Your task to perform on an android device: Look up the best rated bike on Walmart Image 0: 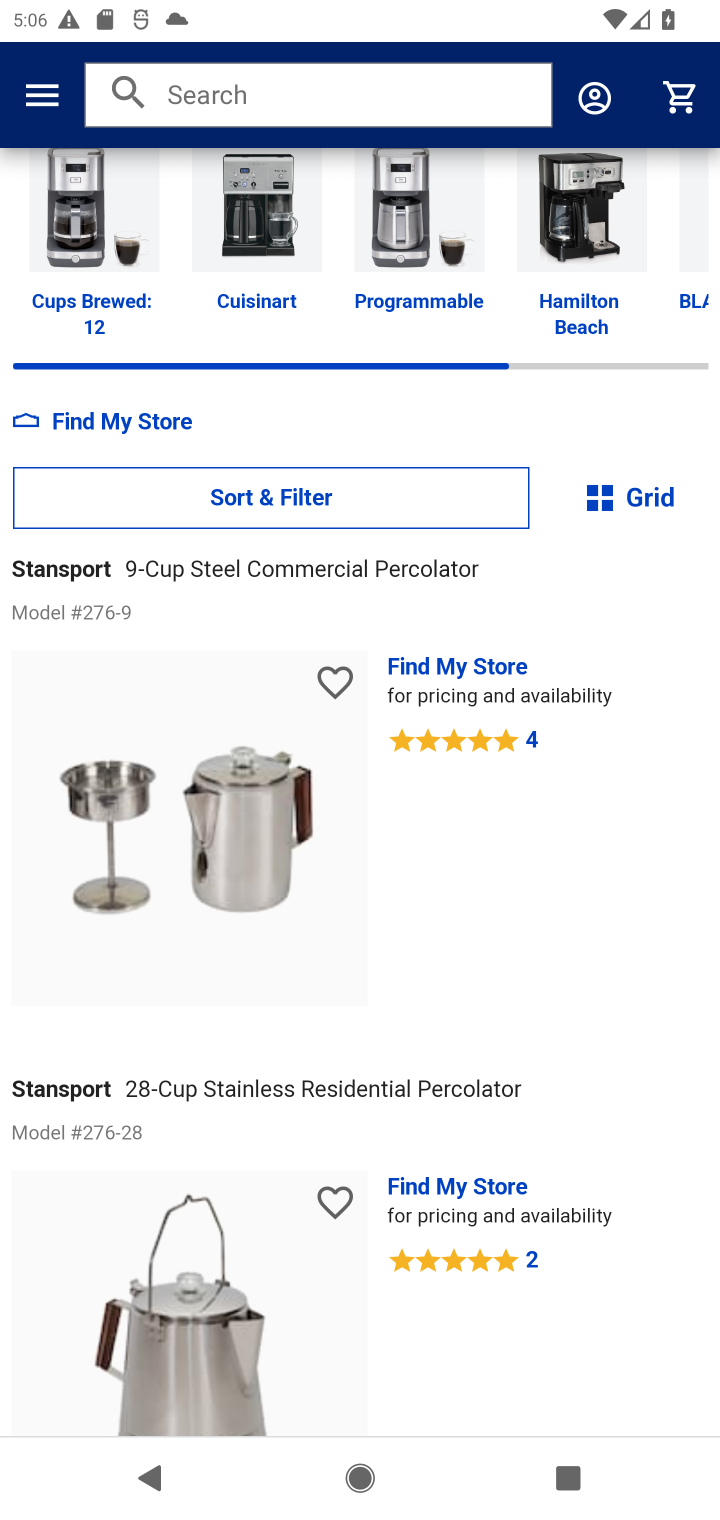
Step 0: press home button
Your task to perform on an android device: Look up the best rated bike on Walmart Image 1: 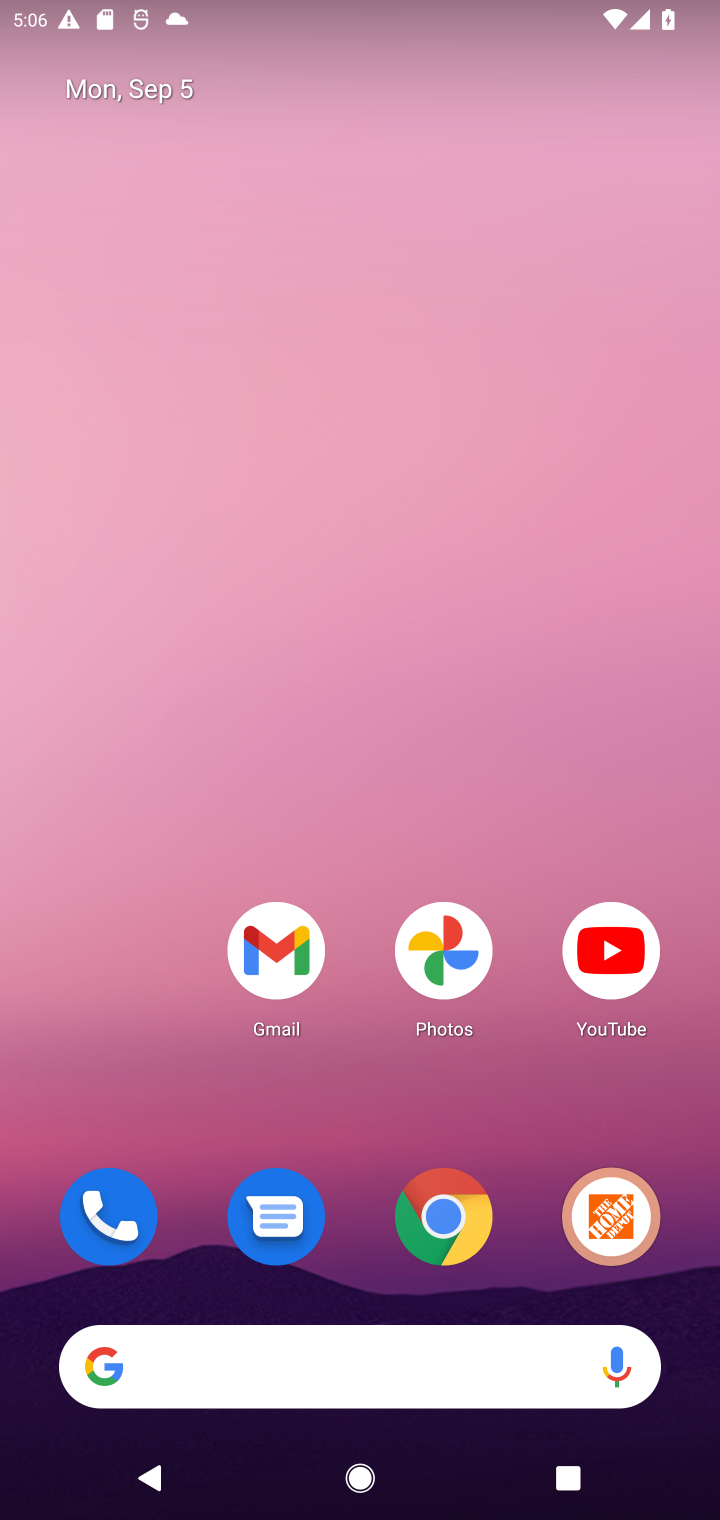
Step 1: click (103, 1360)
Your task to perform on an android device: Look up the best rated bike on Walmart Image 2: 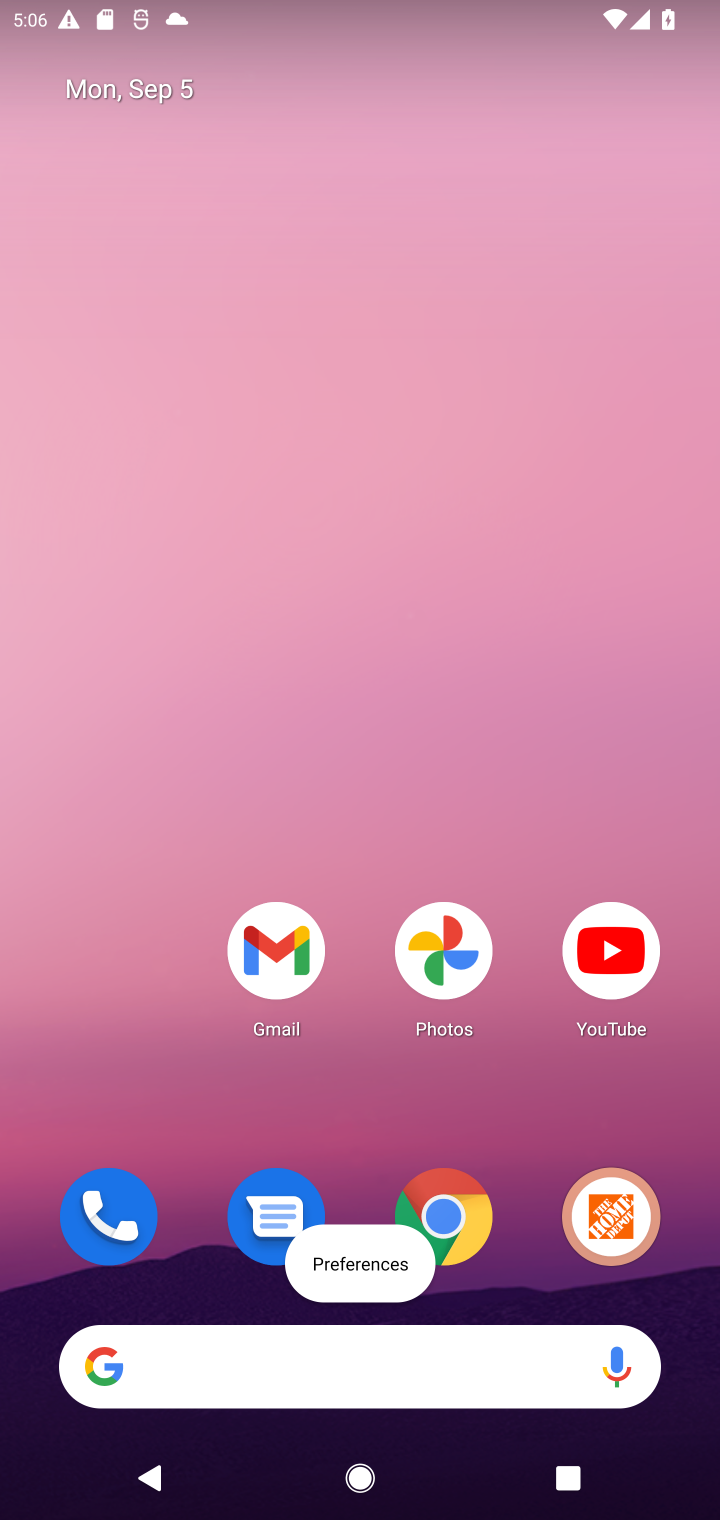
Step 2: click (91, 1358)
Your task to perform on an android device: Look up the best rated bike on Walmart Image 3: 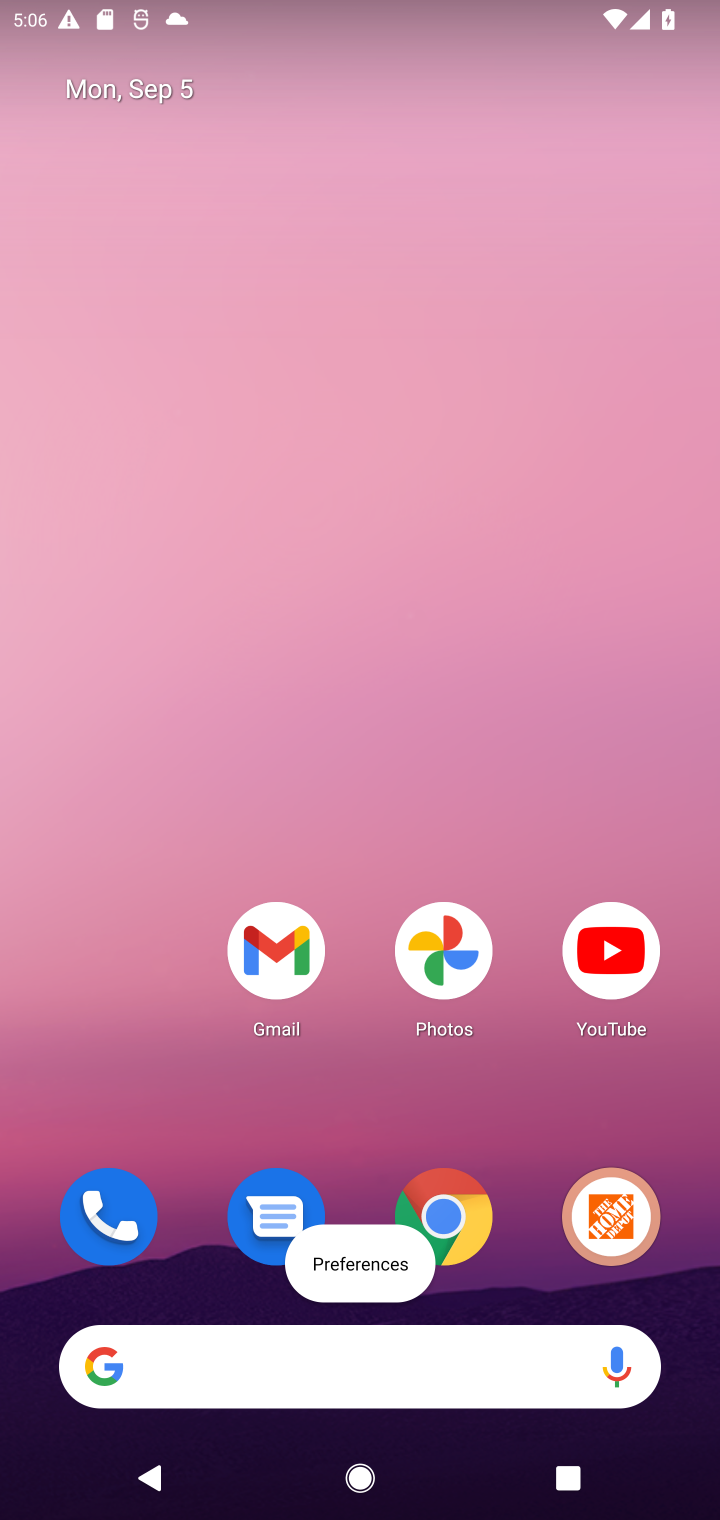
Step 3: click (87, 1357)
Your task to perform on an android device: Look up the best rated bike on Walmart Image 4: 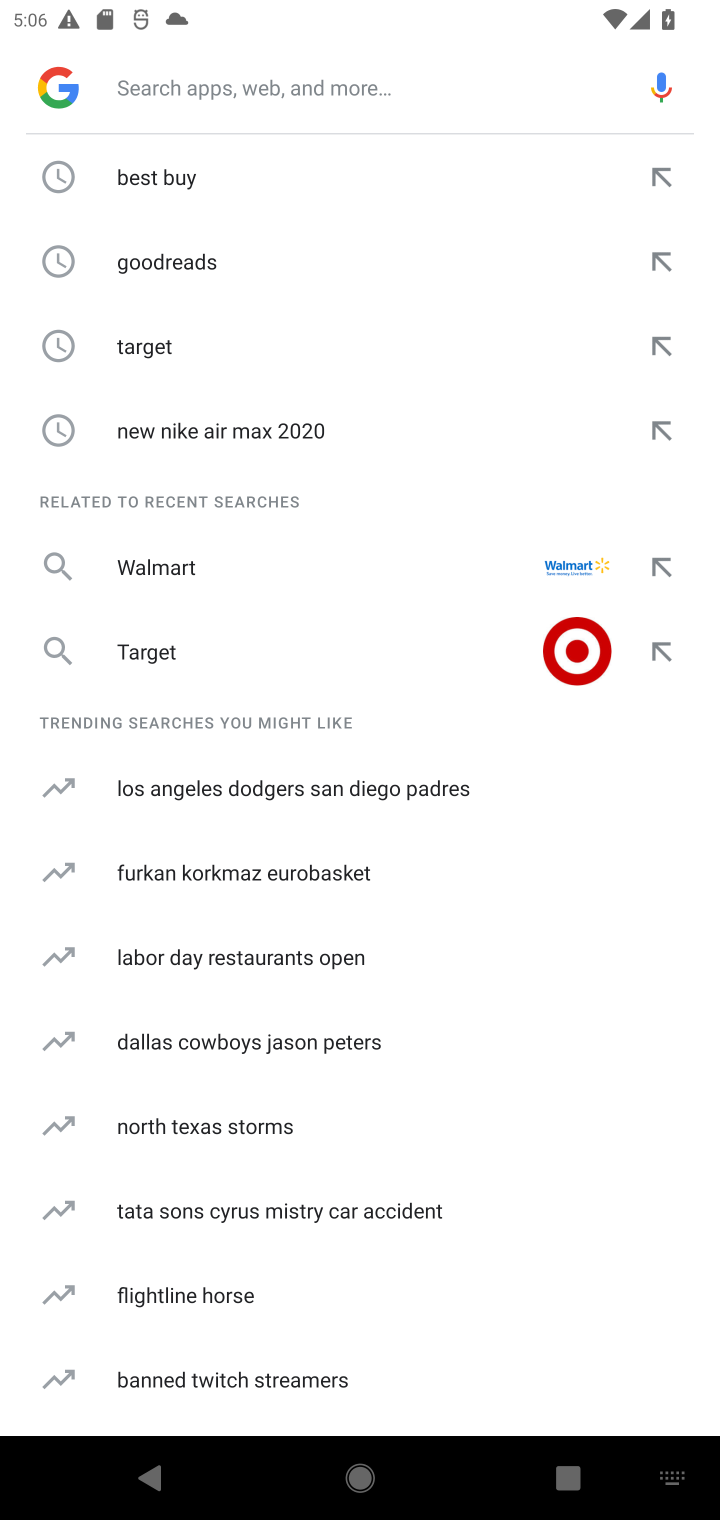
Step 4: type "Walmart"
Your task to perform on an android device: Look up the best rated bike on Walmart Image 5: 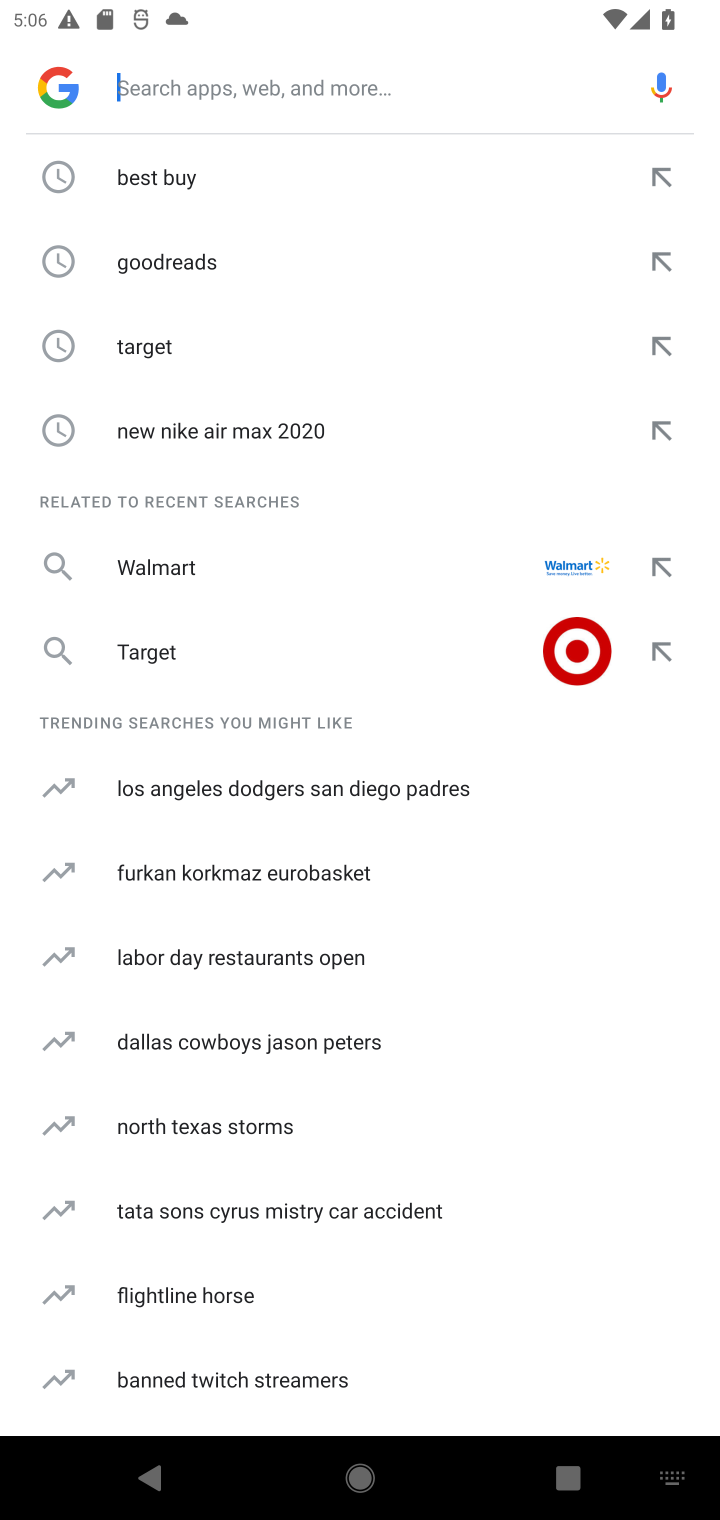
Step 5: click (222, 96)
Your task to perform on an android device: Look up the best rated bike on Walmart Image 6: 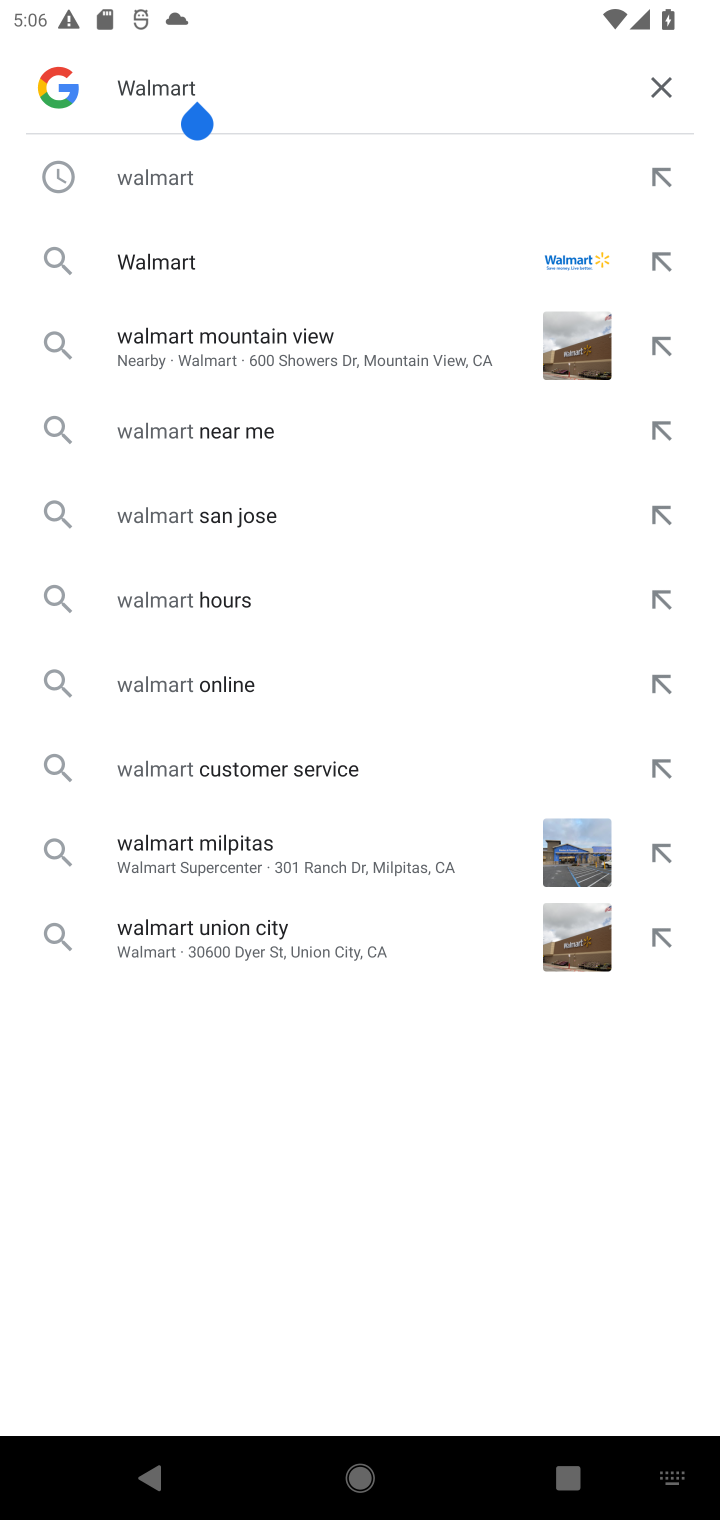
Step 6: press enter
Your task to perform on an android device: Look up the best rated bike on Walmart Image 7: 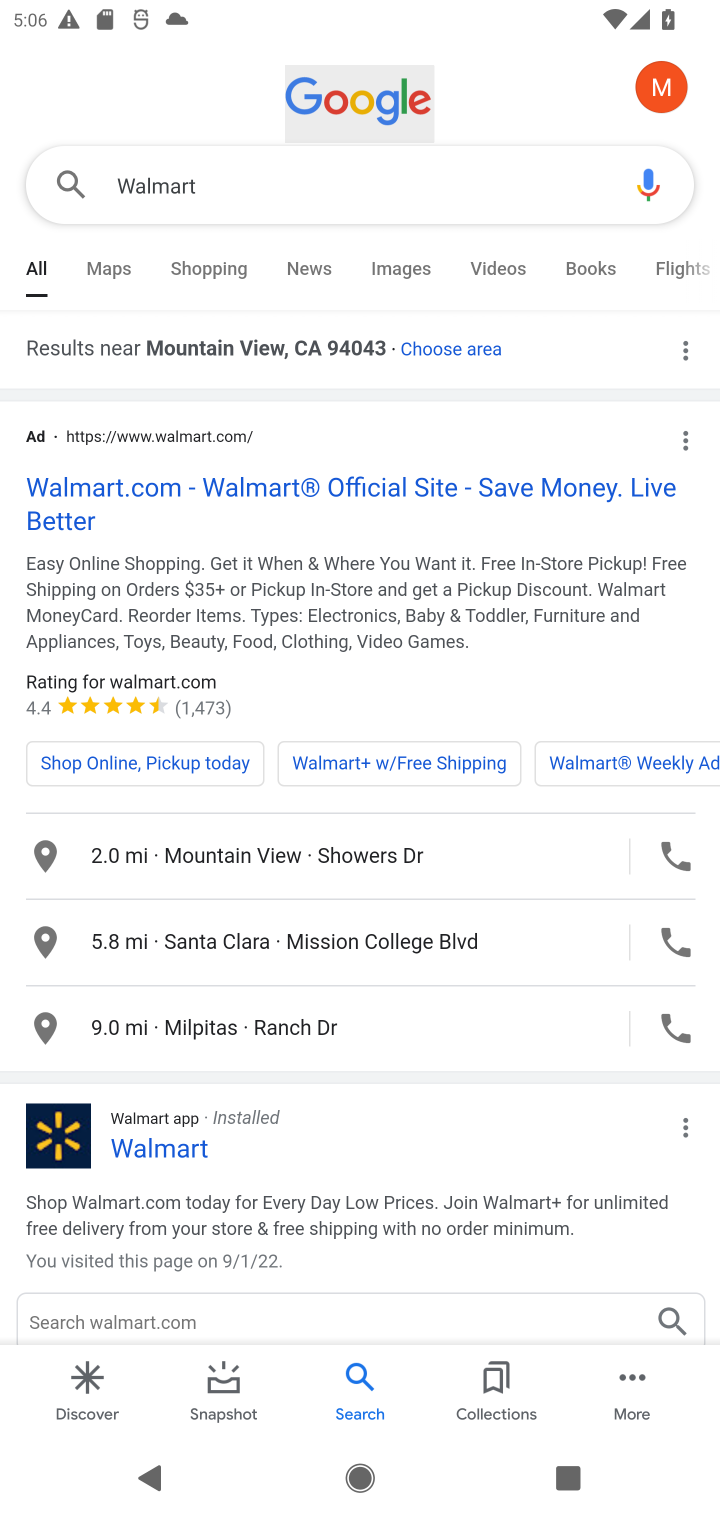
Step 7: drag from (395, 1096) to (382, 847)
Your task to perform on an android device: Look up the best rated bike on Walmart Image 8: 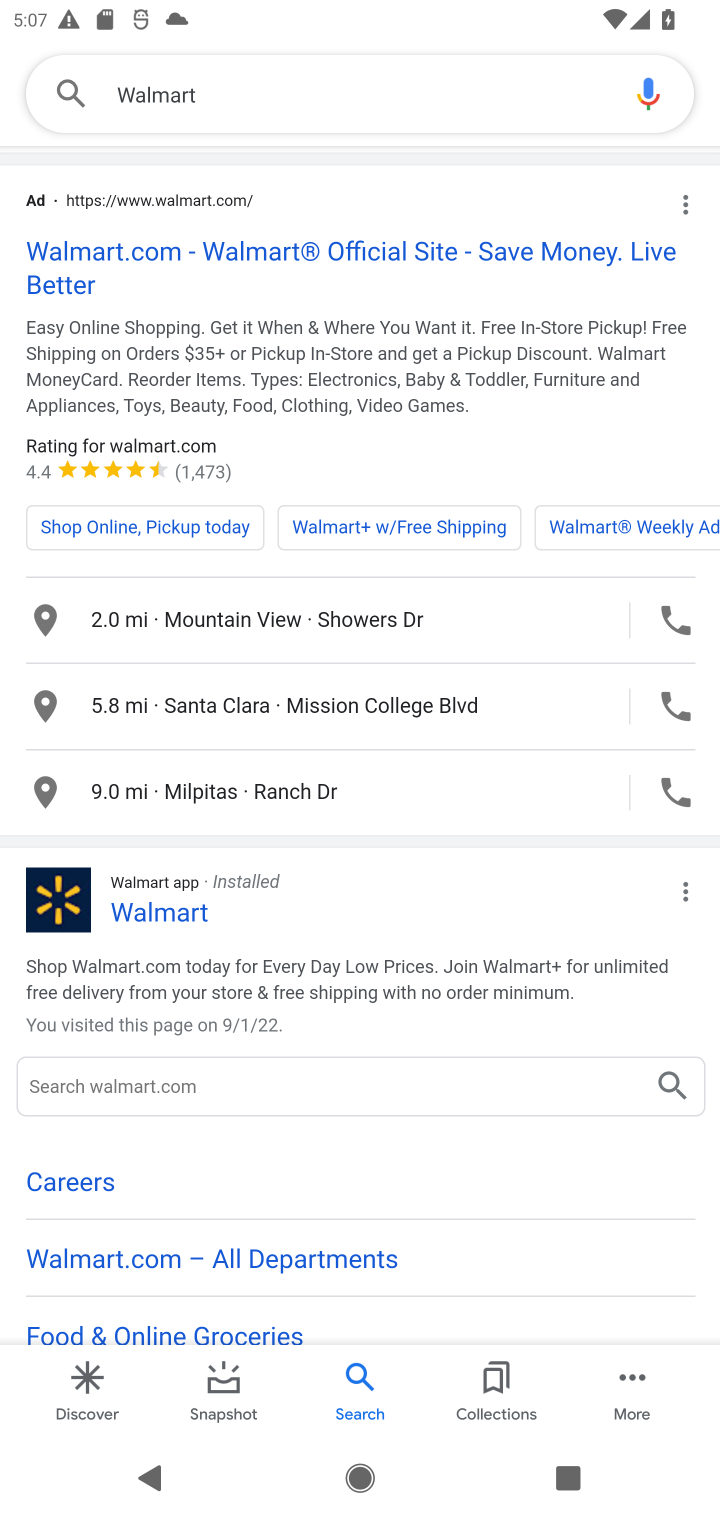
Step 8: click (89, 259)
Your task to perform on an android device: Look up the best rated bike on Walmart Image 9: 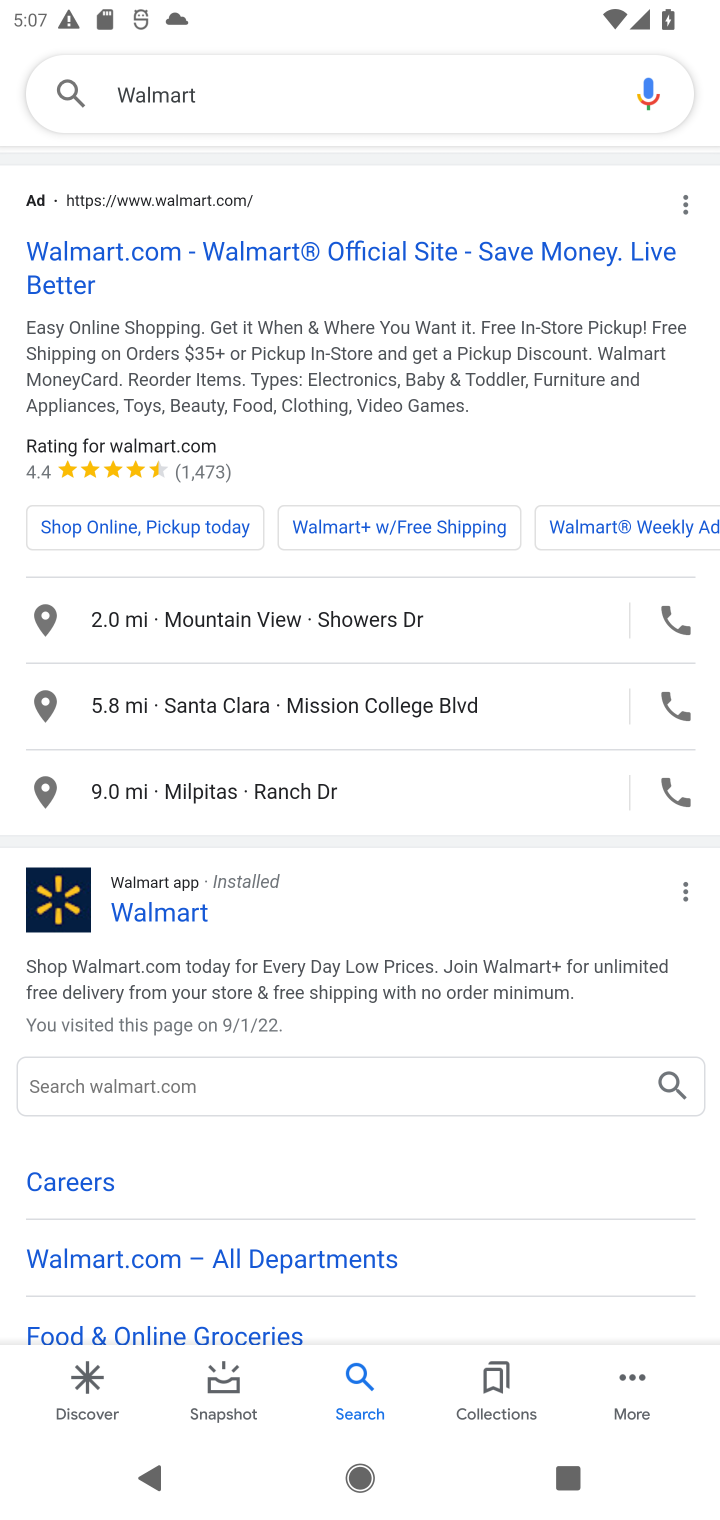
Step 9: click (129, 238)
Your task to perform on an android device: Look up the best rated bike on Walmart Image 10: 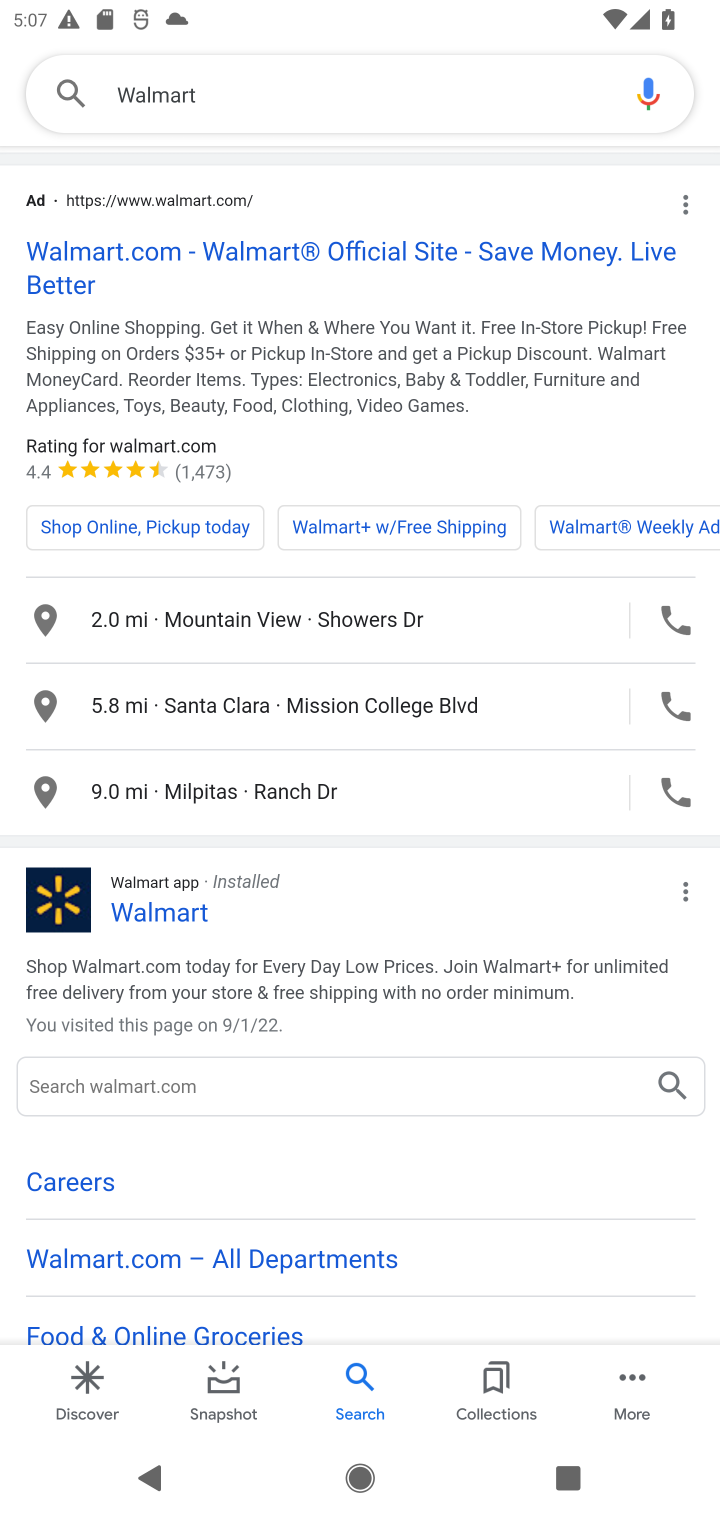
Step 10: click (502, 247)
Your task to perform on an android device: Look up the best rated bike on Walmart Image 11: 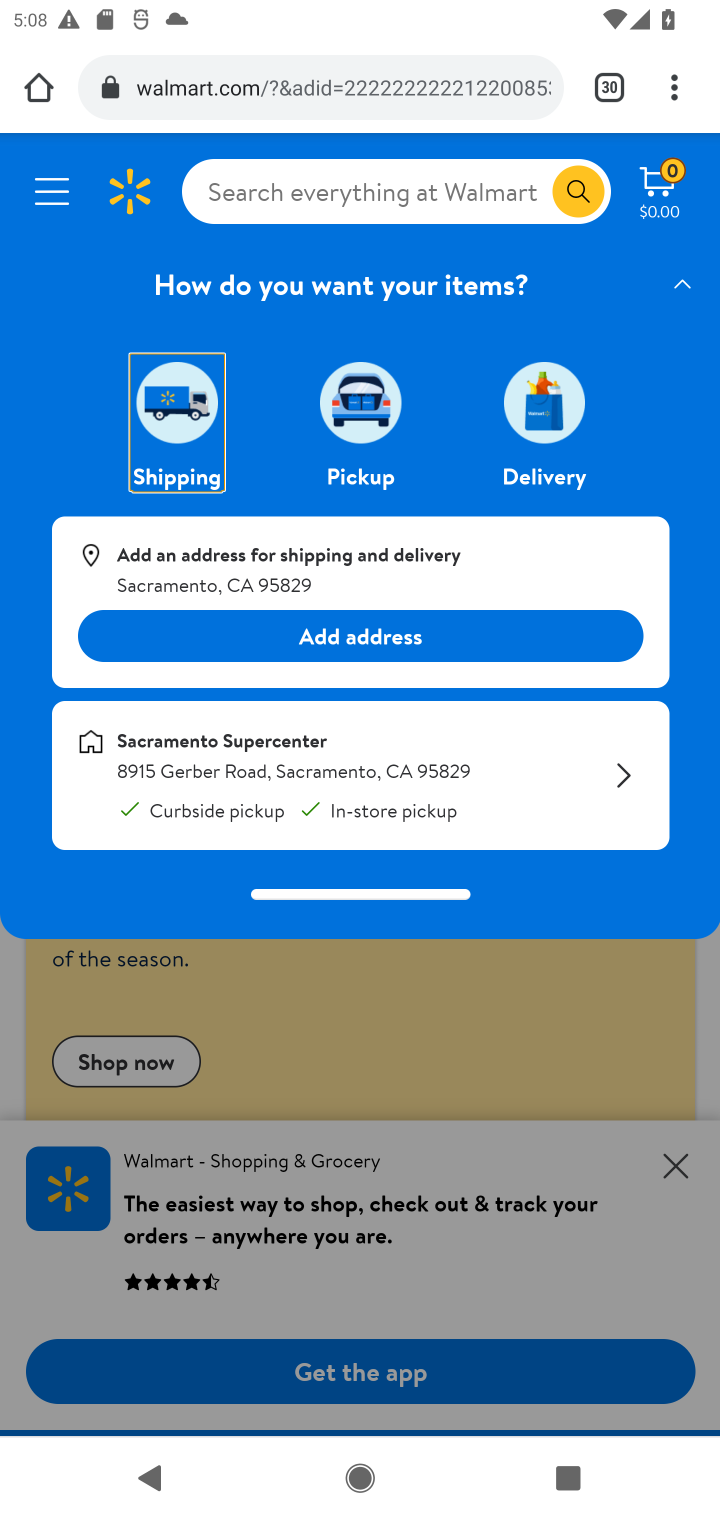
Step 11: click (377, 181)
Your task to perform on an android device: Look up the best rated bike on Walmart Image 12: 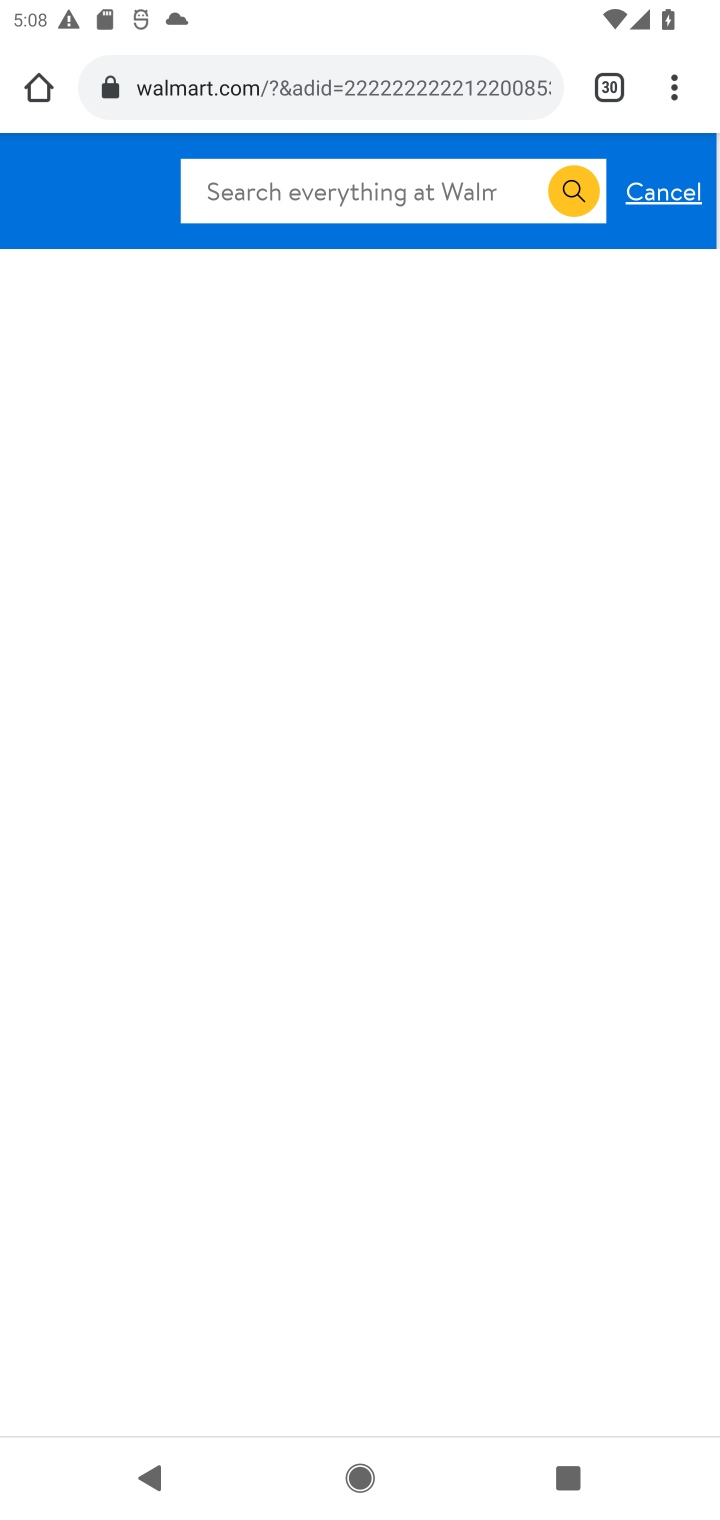
Step 12: type "bike"
Your task to perform on an android device: Look up the best rated bike on Walmart Image 13: 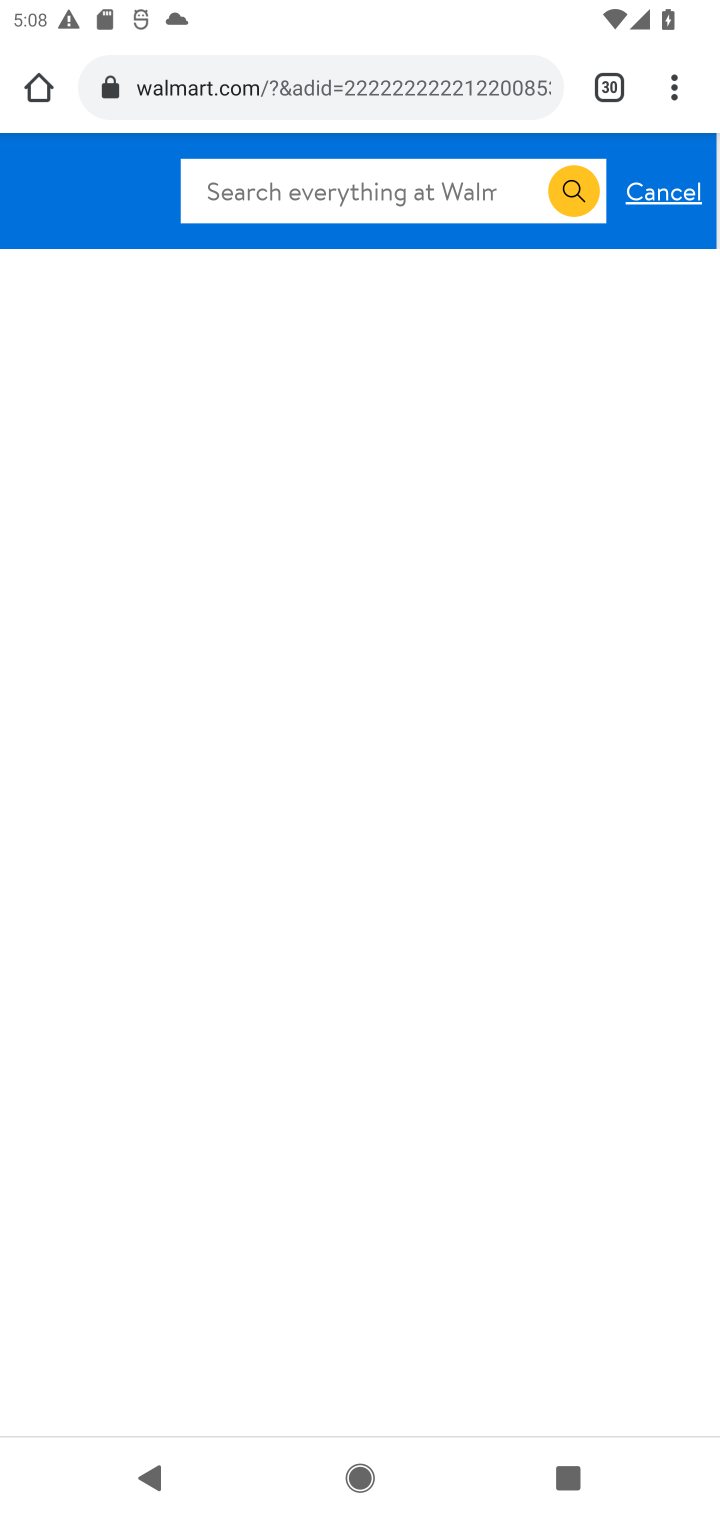
Step 13: click (256, 191)
Your task to perform on an android device: Look up the best rated bike on Walmart Image 14: 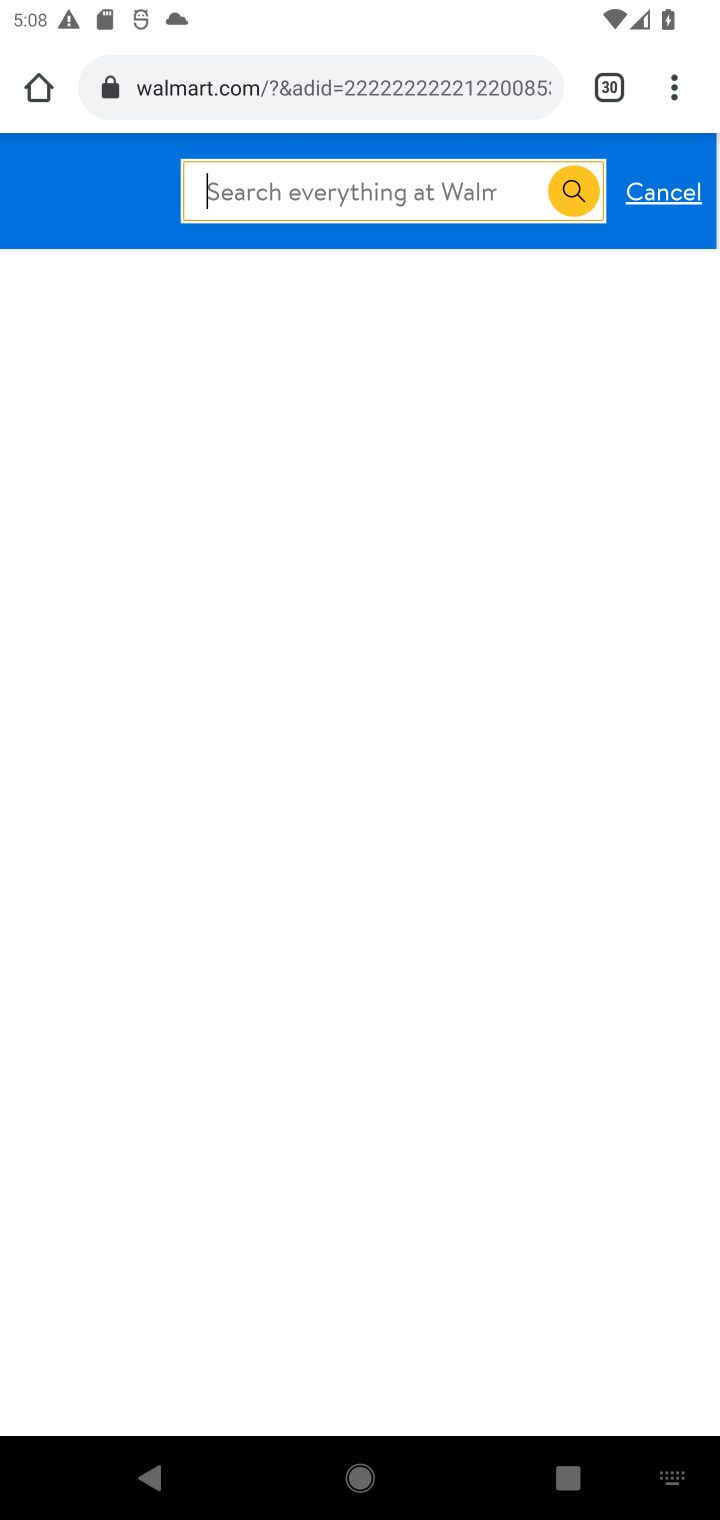
Step 14: click (298, 196)
Your task to perform on an android device: Look up the best rated bike on Walmart Image 15: 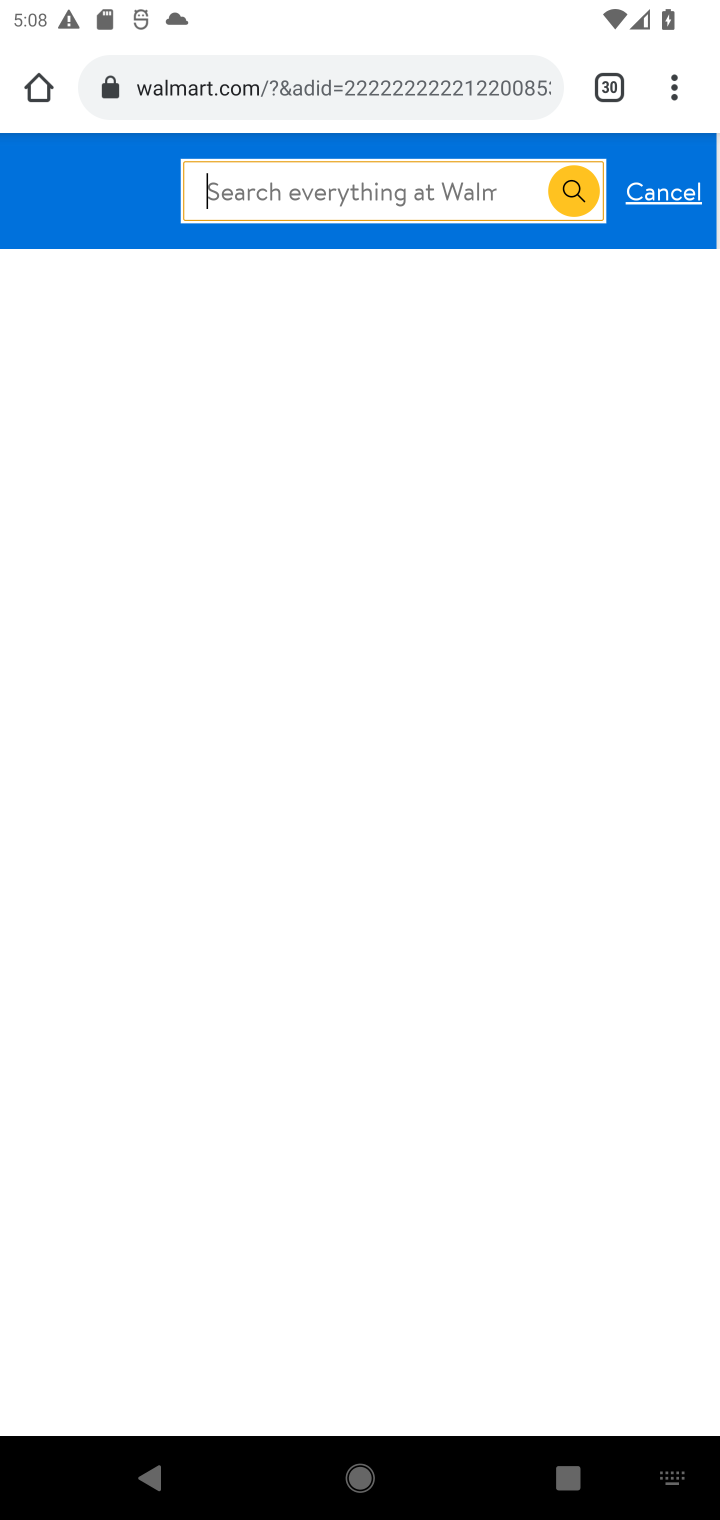
Step 15: type "bike"
Your task to perform on an android device: Look up the best rated bike on Walmart Image 16: 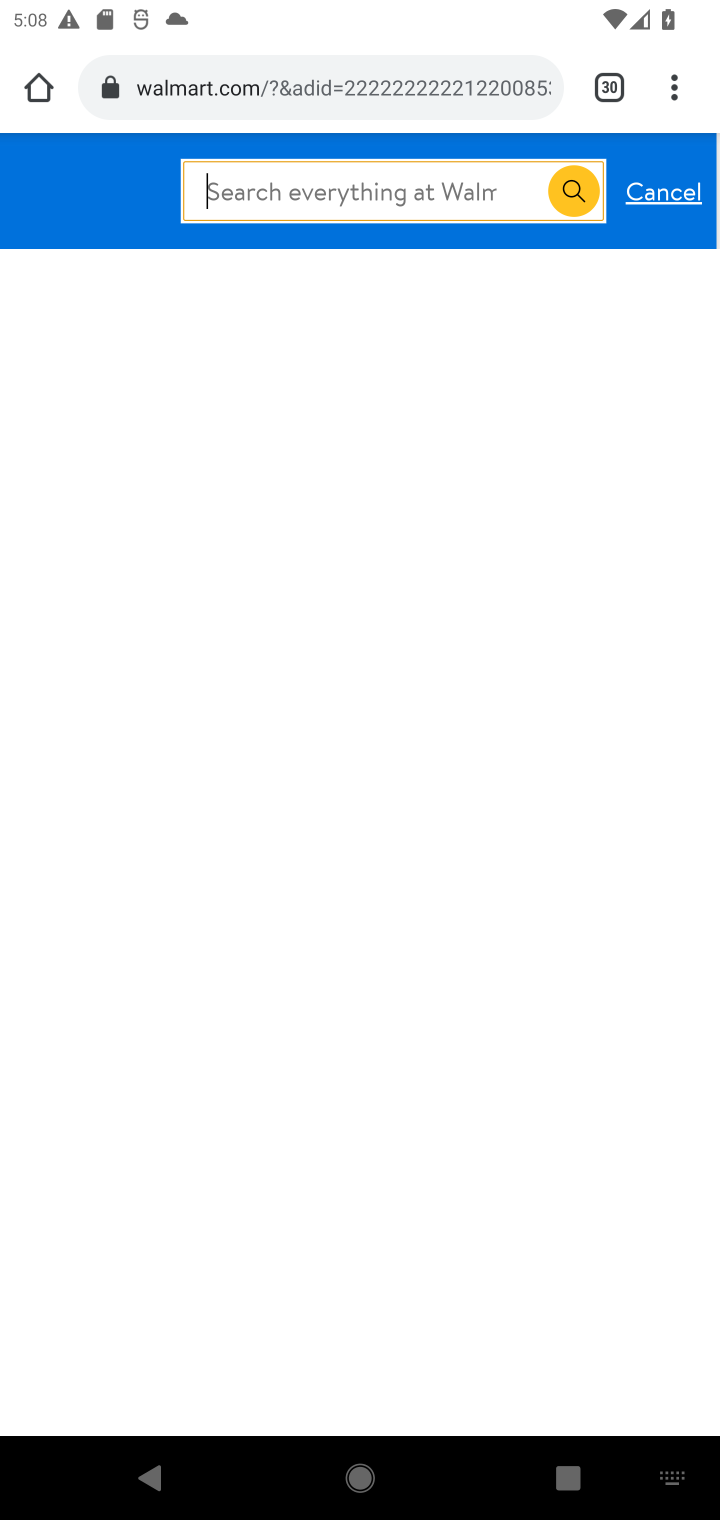
Step 16: click (299, 199)
Your task to perform on an android device: Look up the best rated bike on Walmart Image 17: 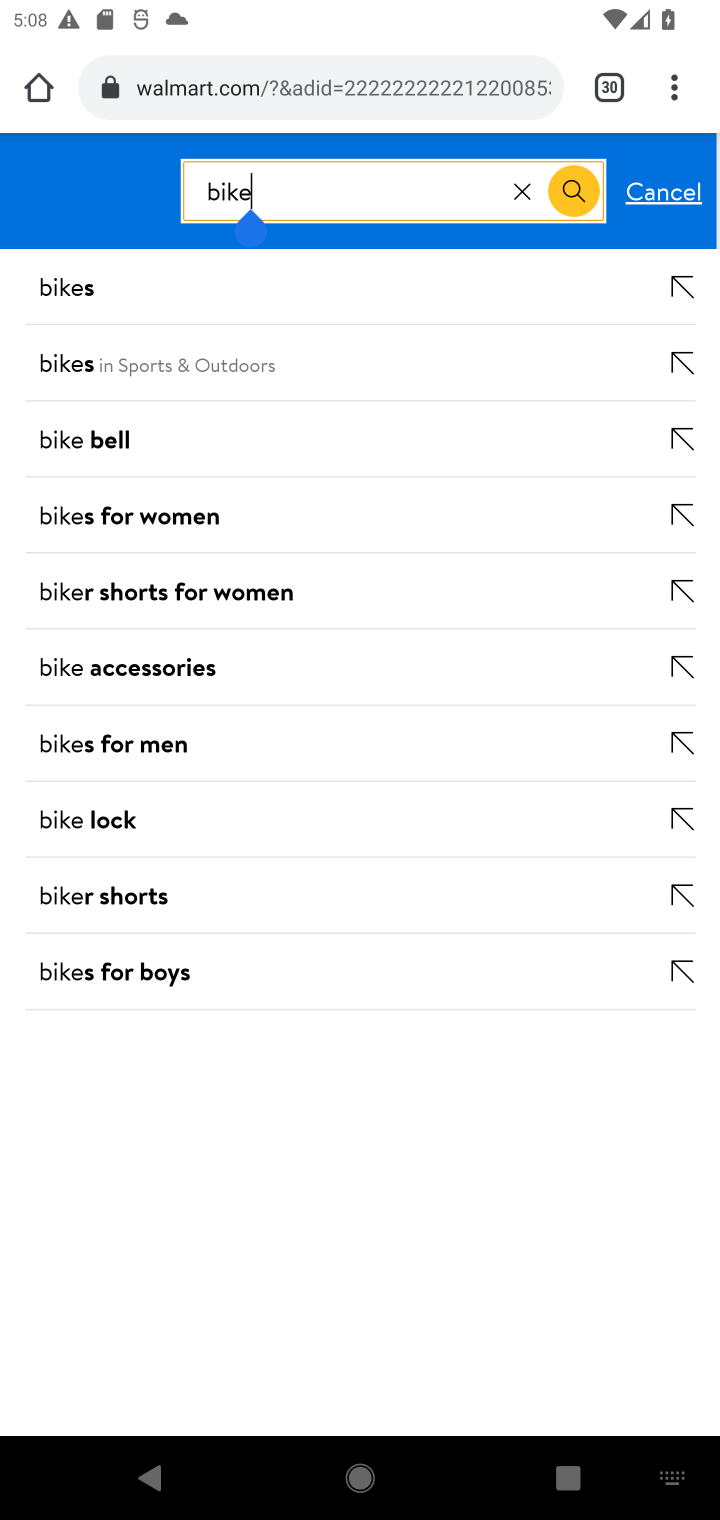
Step 17: press enter
Your task to perform on an android device: Look up the best rated bike on Walmart Image 18: 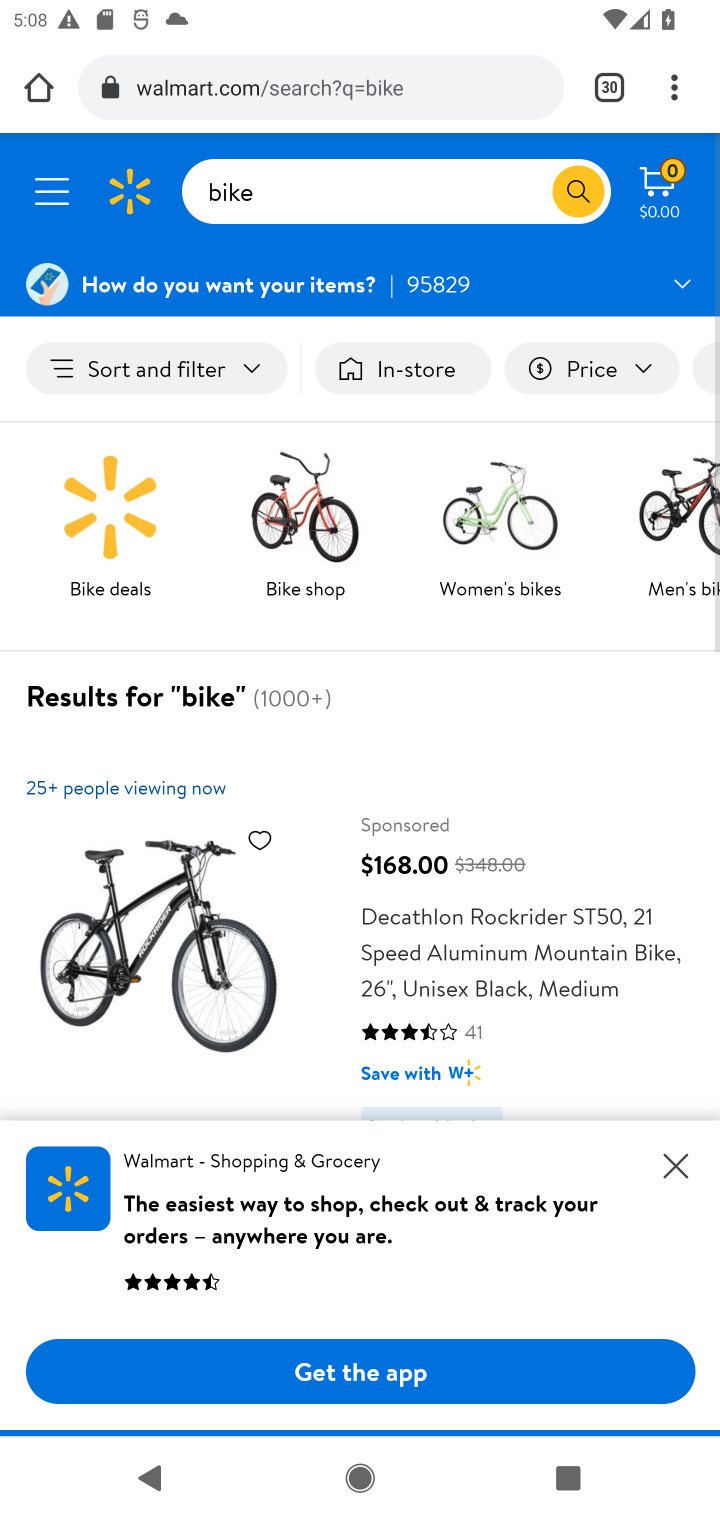
Step 18: click (662, 1171)
Your task to perform on an android device: Look up the best rated bike on Walmart Image 19: 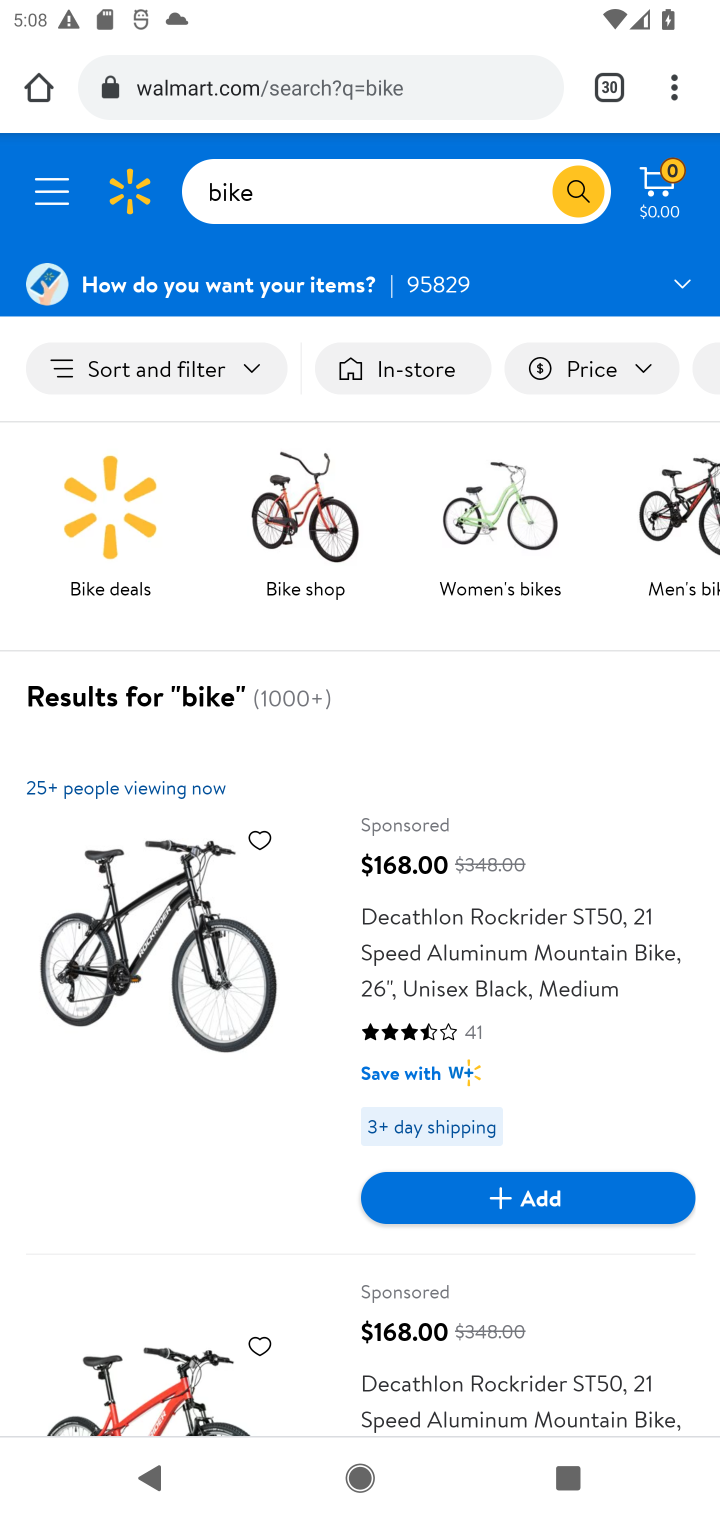
Step 19: click (110, 369)
Your task to perform on an android device: Look up the best rated bike on Walmart Image 20: 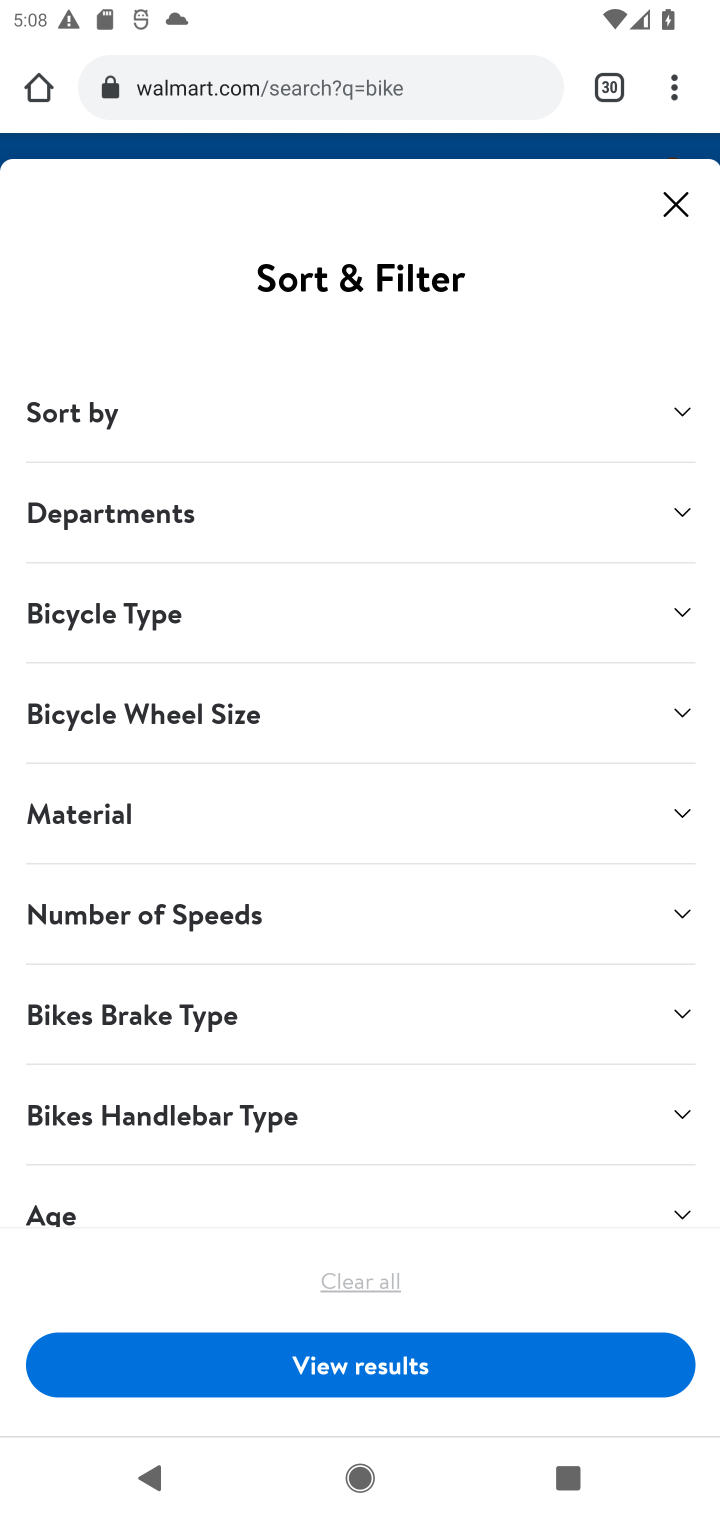
Step 20: click (684, 418)
Your task to perform on an android device: Look up the best rated bike on Walmart Image 21: 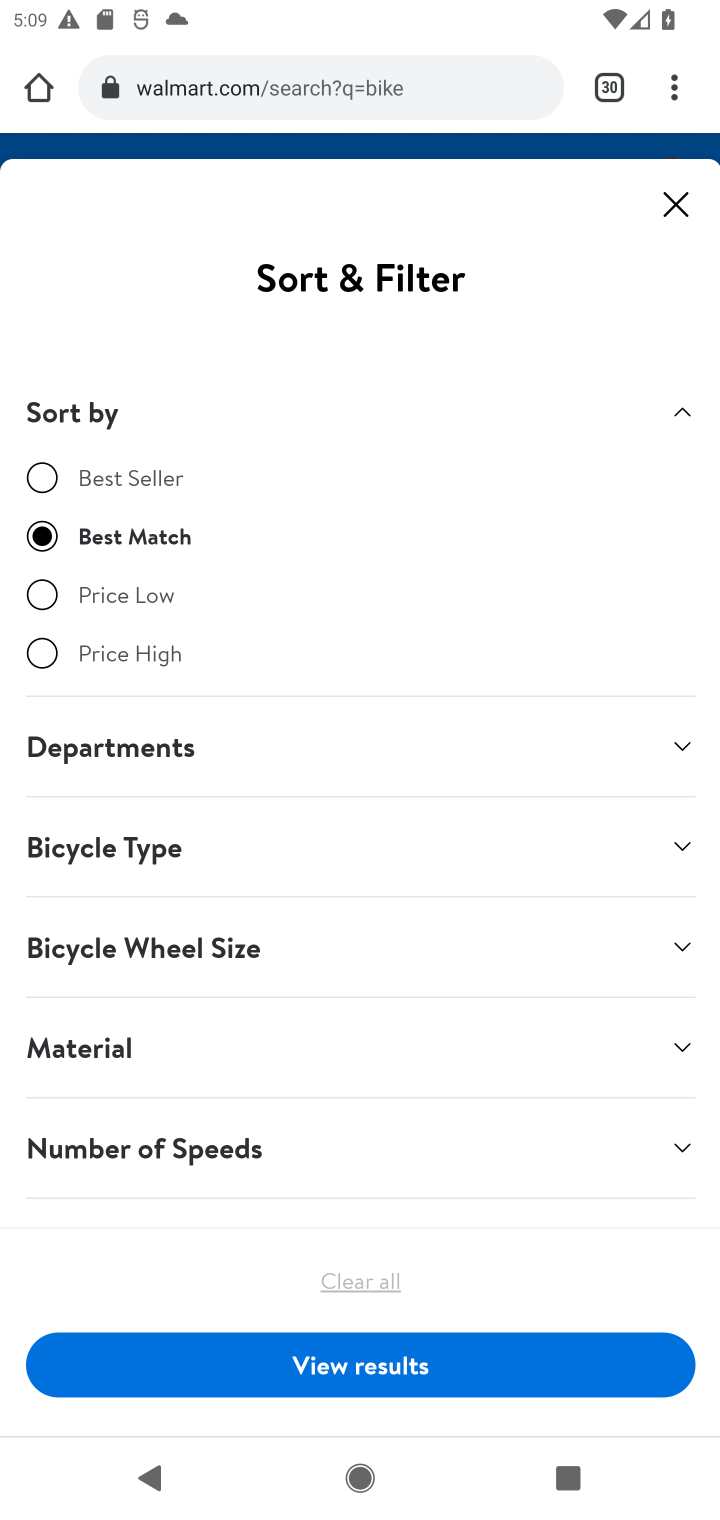
Step 21: drag from (281, 675) to (362, 320)
Your task to perform on an android device: Look up the best rated bike on Walmart Image 22: 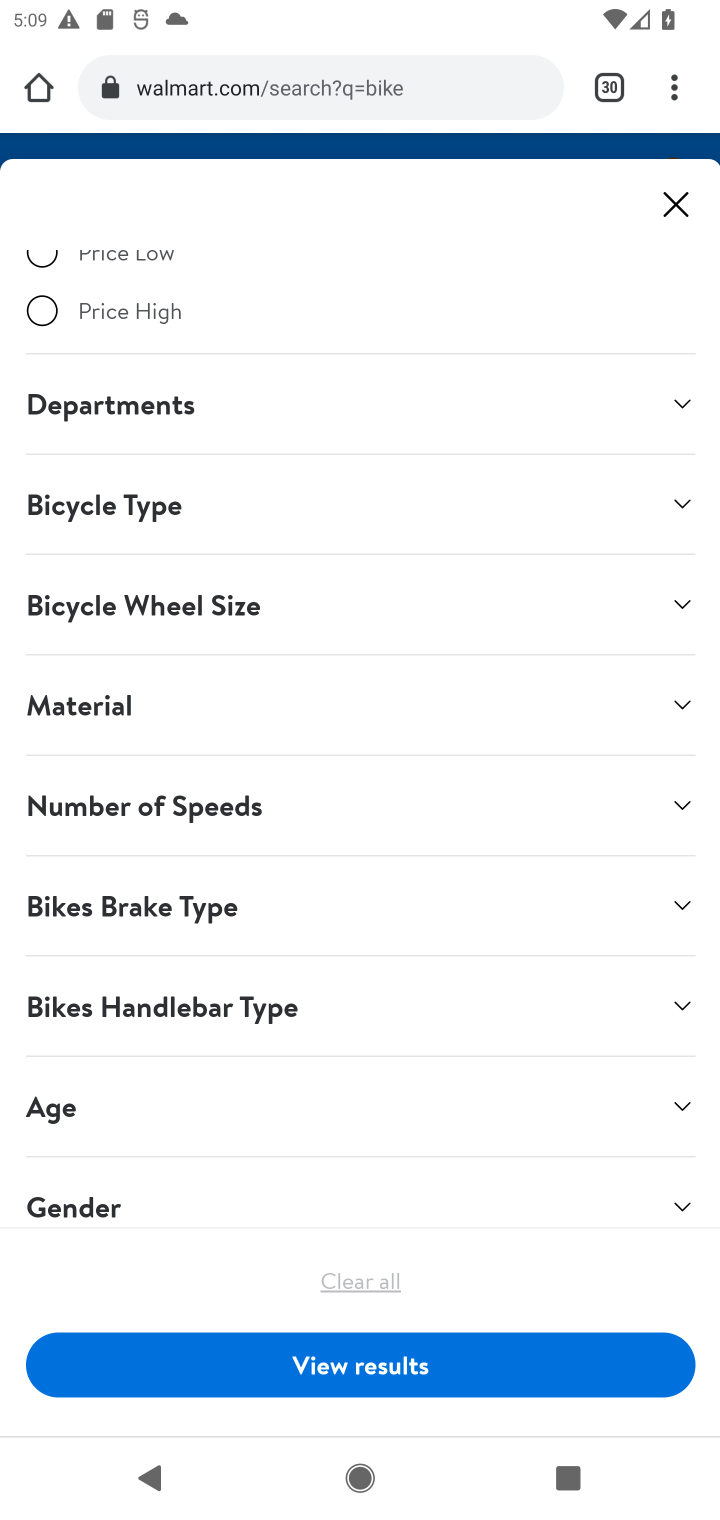
Step 22: click (448, 339)
Your task to perform on an android device: Look up the best rated bike on Walmart Image 23: 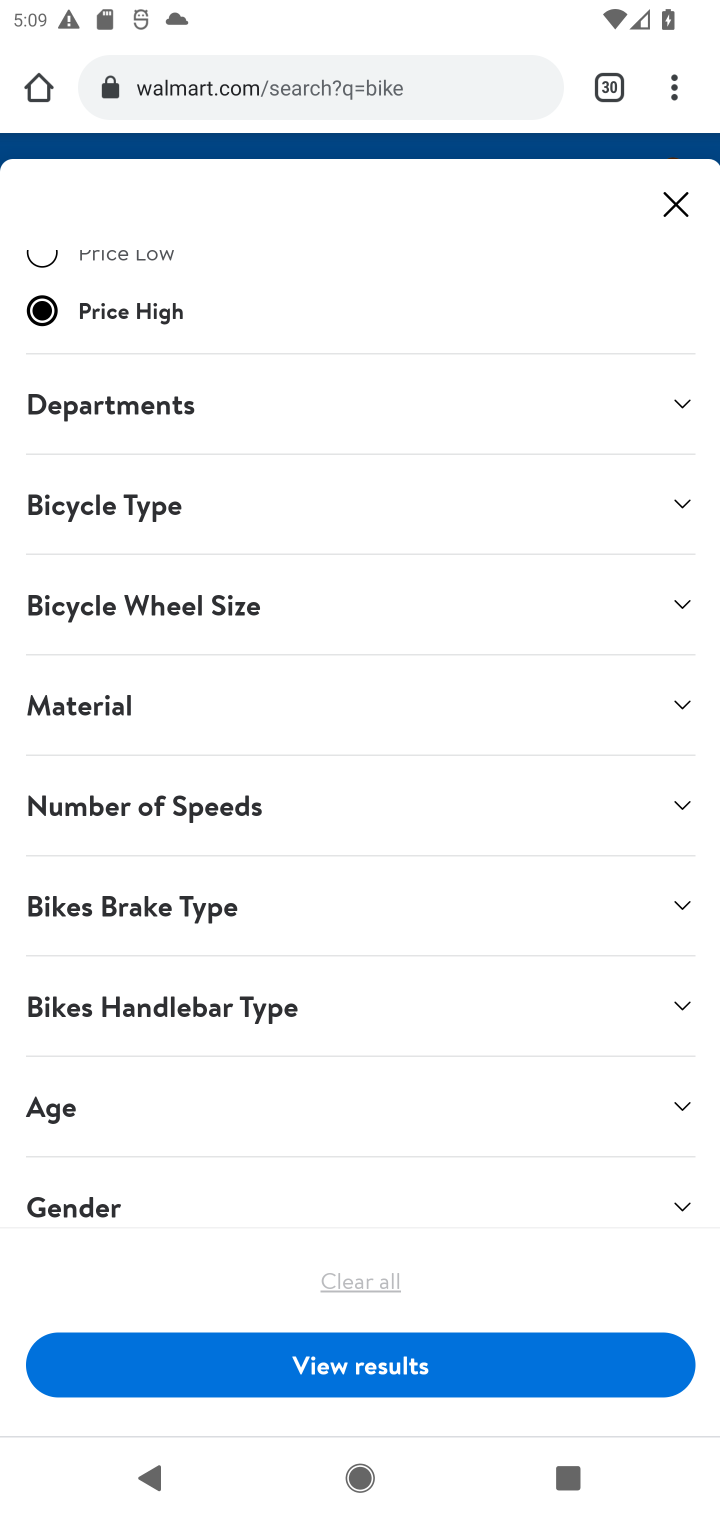
Step 23: click (344, 961)
Your task to perform on an android device: Look up the best rated bike on Walmart Image 24: 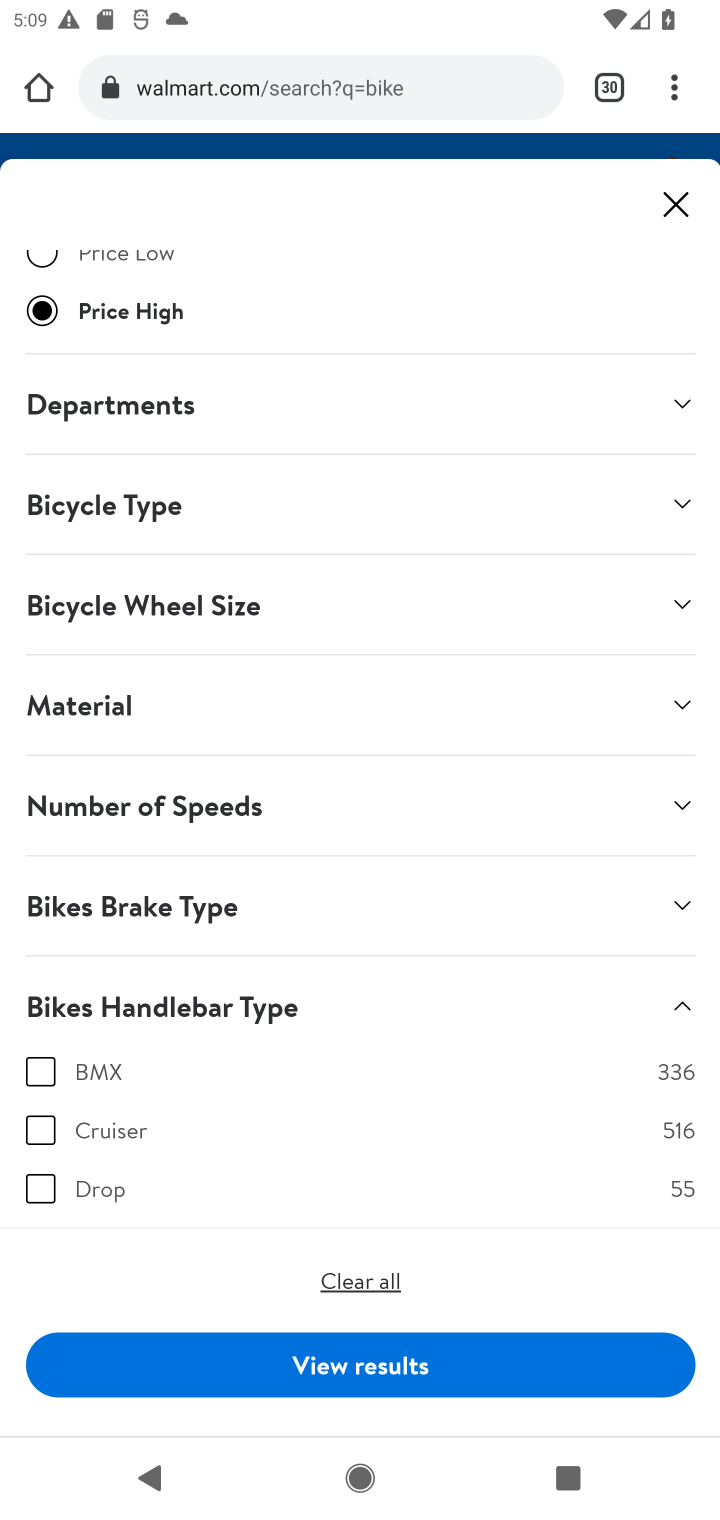
Step 24: drag from (216, 357) to (377, 1064)
Your task to perform on an android device: Look up the best rated bike on Walmart Image 25: 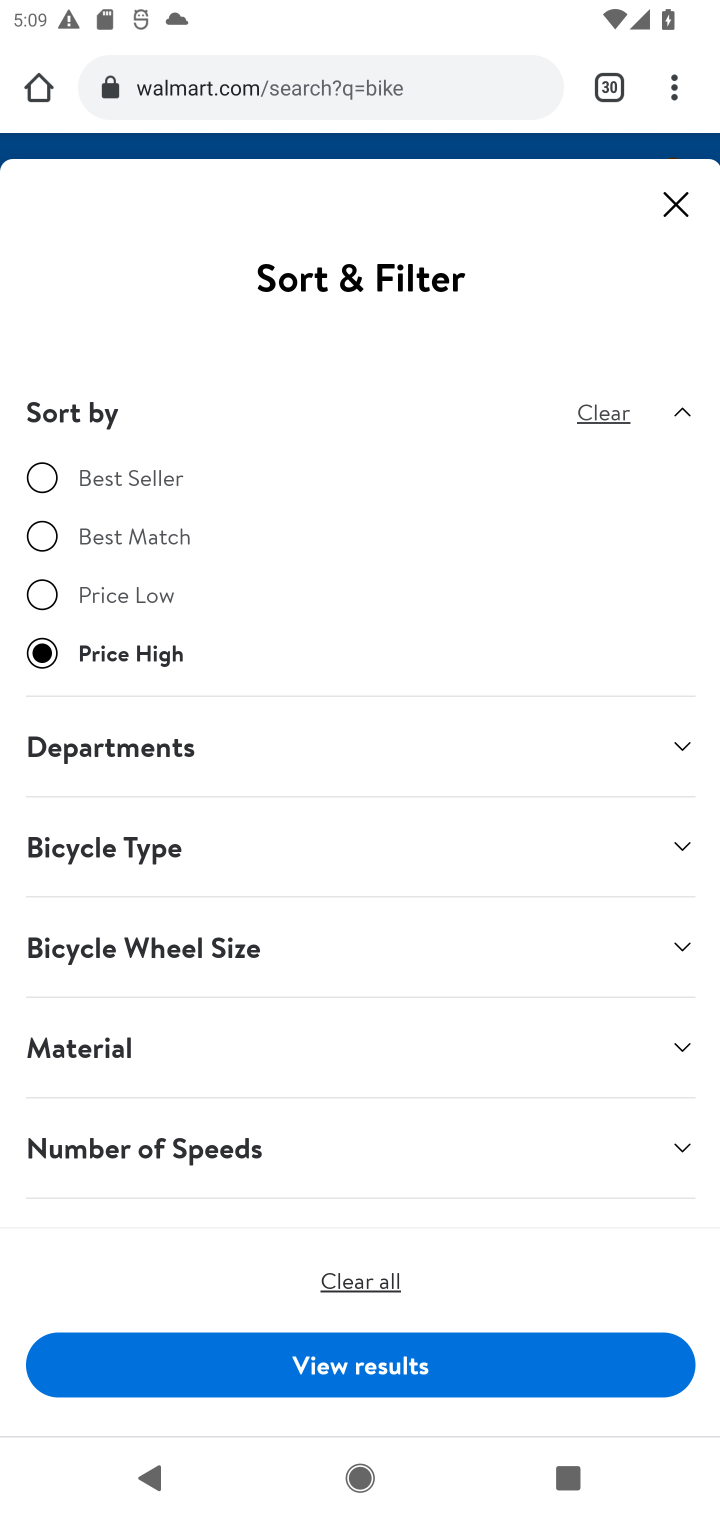
Step 25: drag from (405, 1378) to (716, 483)
Your task to perform on an android device: Look up the best rated bike on Walmart Image 26: 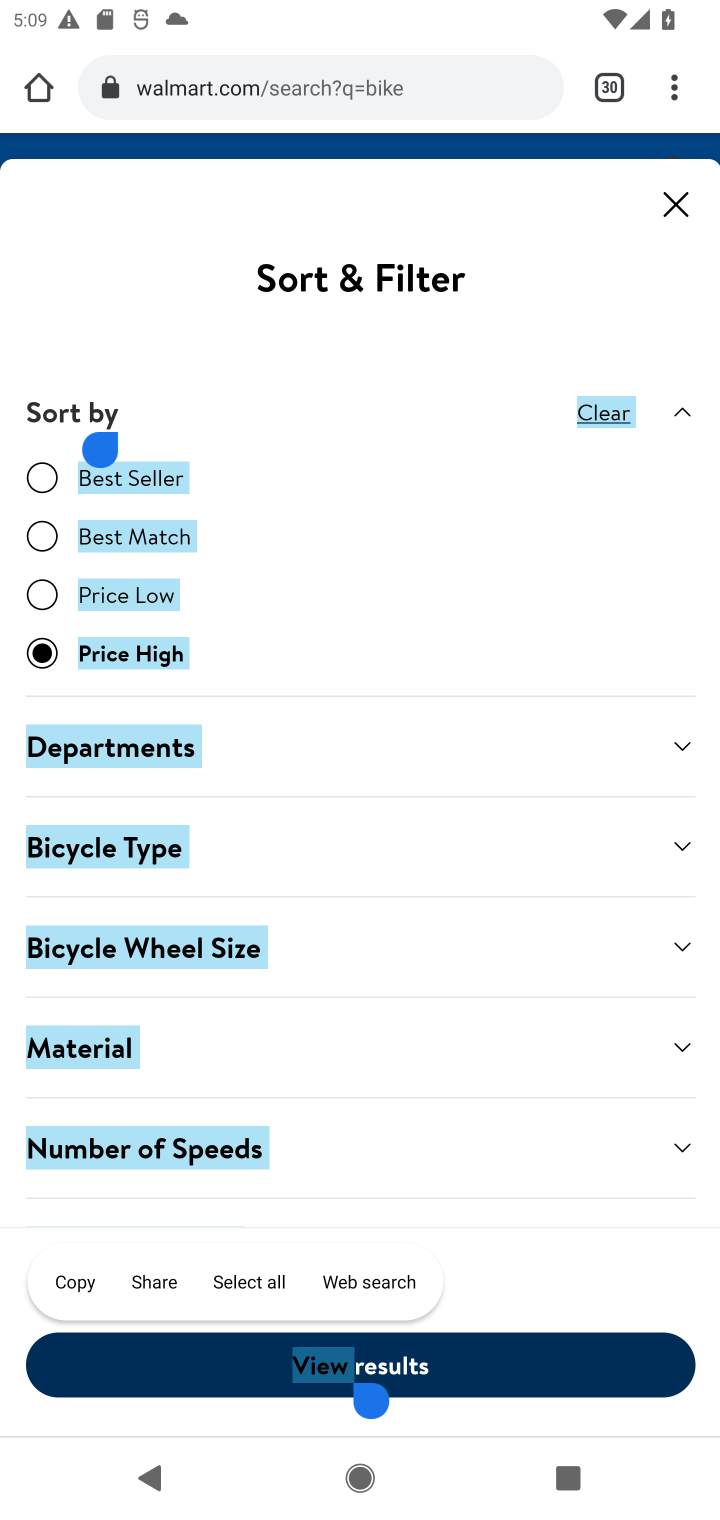
Step 26: click (44, 481)
Your task to perform on an android device: Look up the best rated bike on Walmart Image 27: 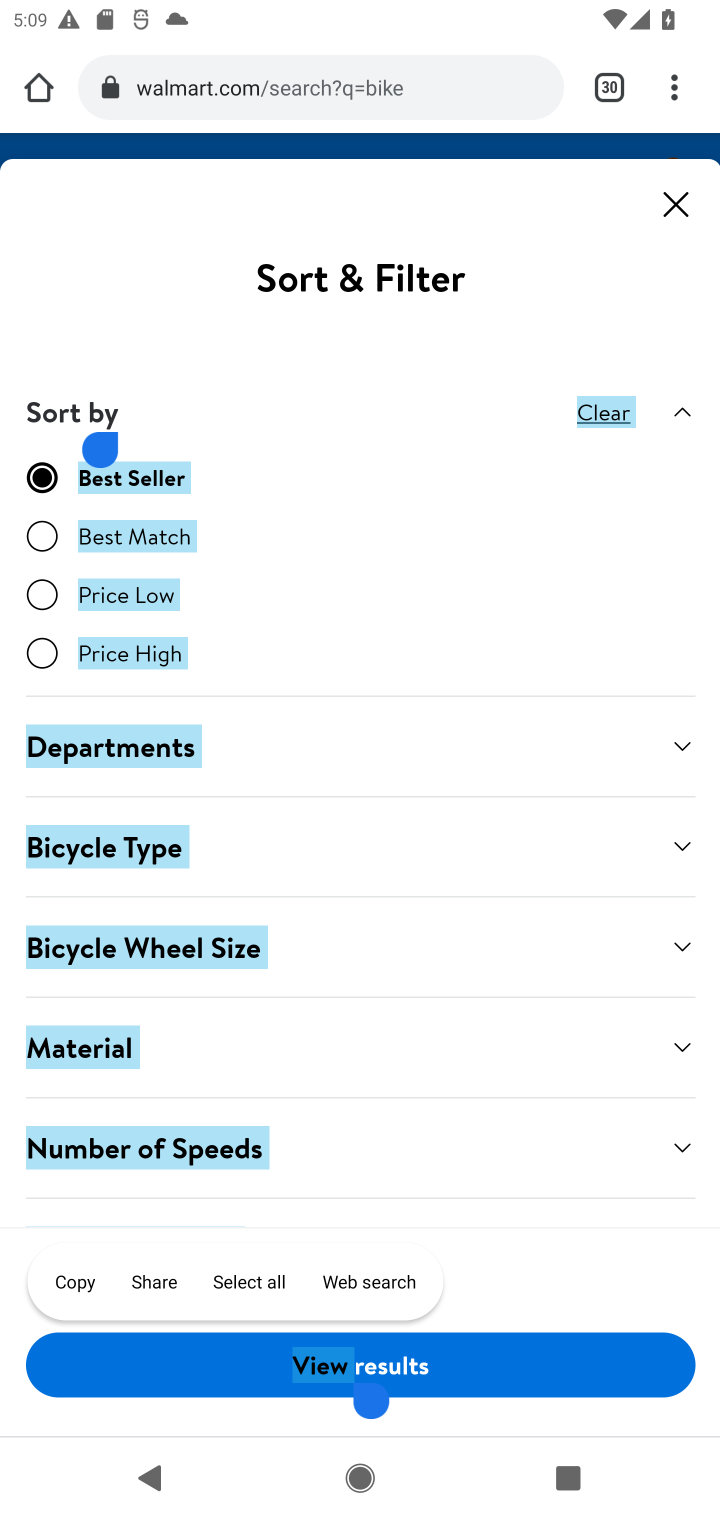
Step 27: click (452, 1370)
Your task to perform on an android device: Look up the best rated bike on Walmart Image 28: 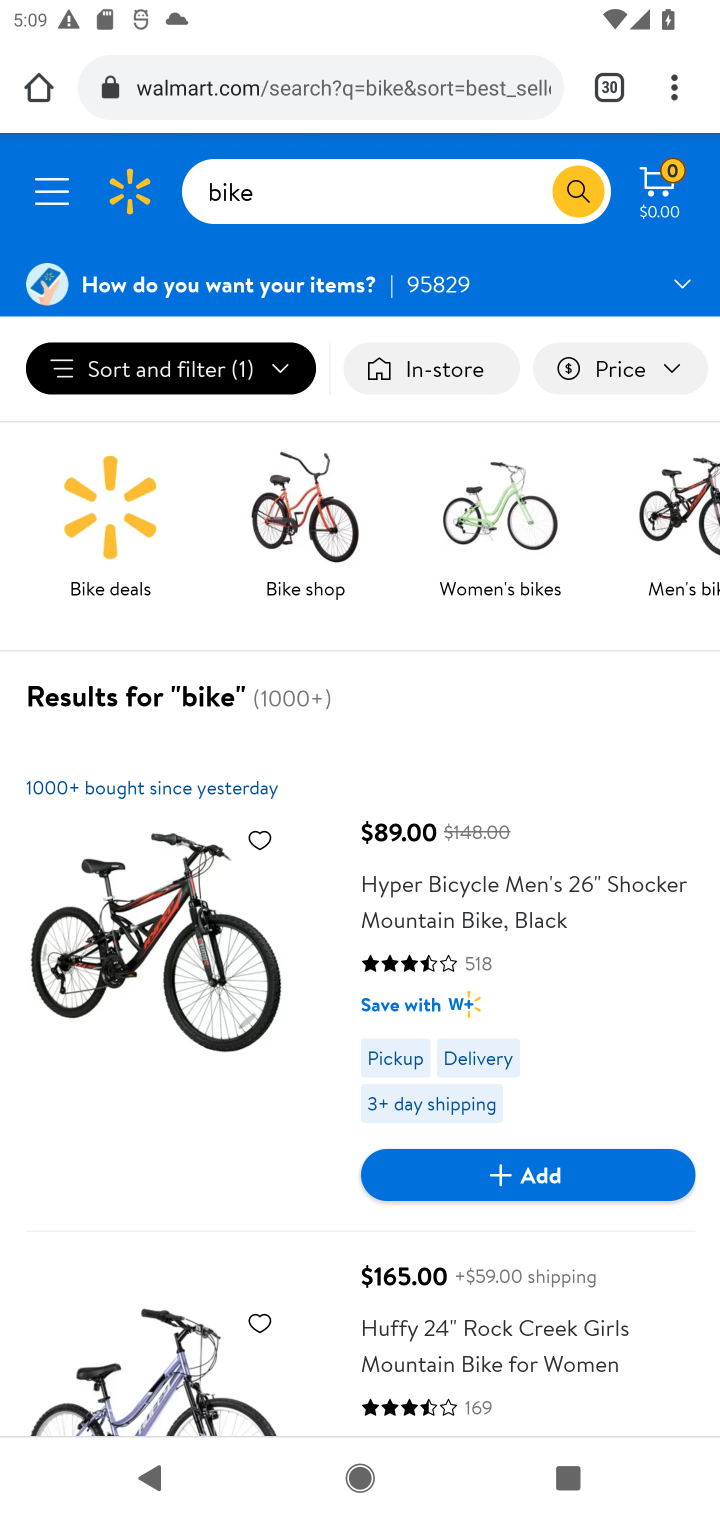
Step 28: task complete